Your task to perform on an android device: Check the weather Image 0: 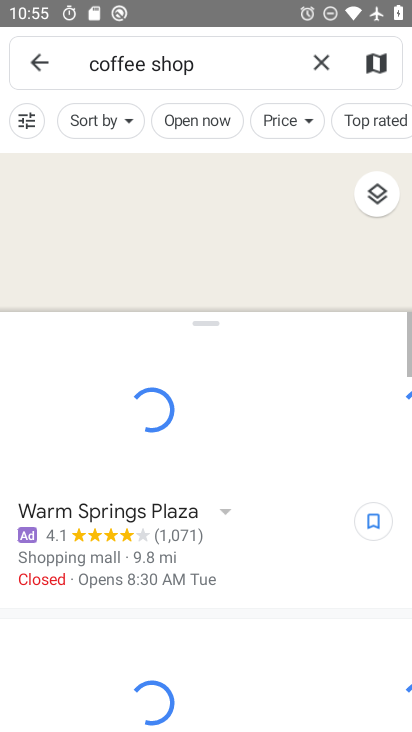
Step 0: press home button
Your task to perform on an android device: Check the weather Image 1: 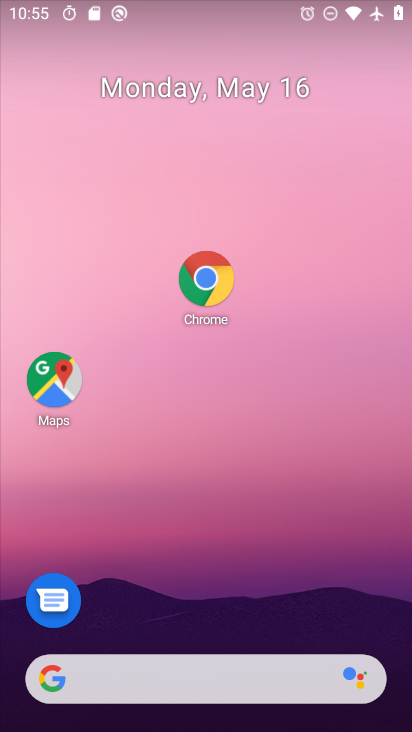
Step 1: click (53, 677)
Your task to perform on an android device: Check the weather Image 2: 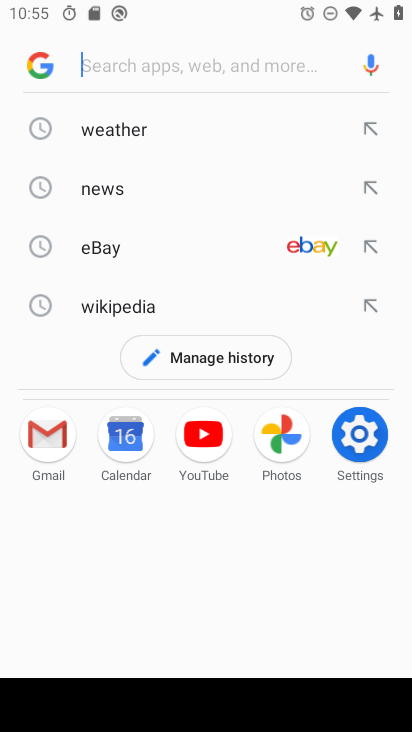
Step 2: click (122, 131)
Your task to perform on an android device: Check the weather Image 3: 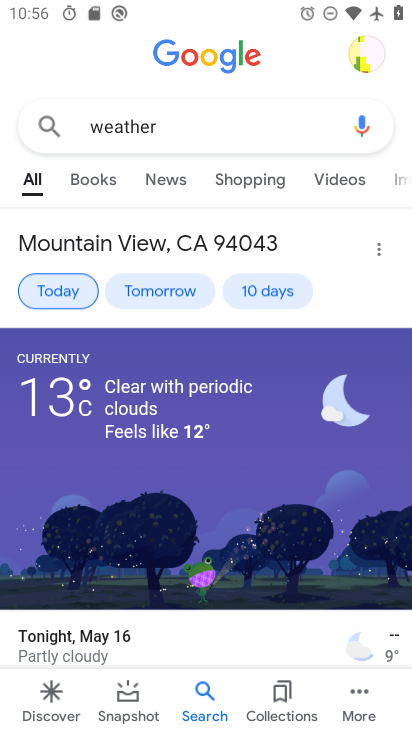
Step 3: task complete